Your task to perform on an android device: set the stopwatch Image 0: 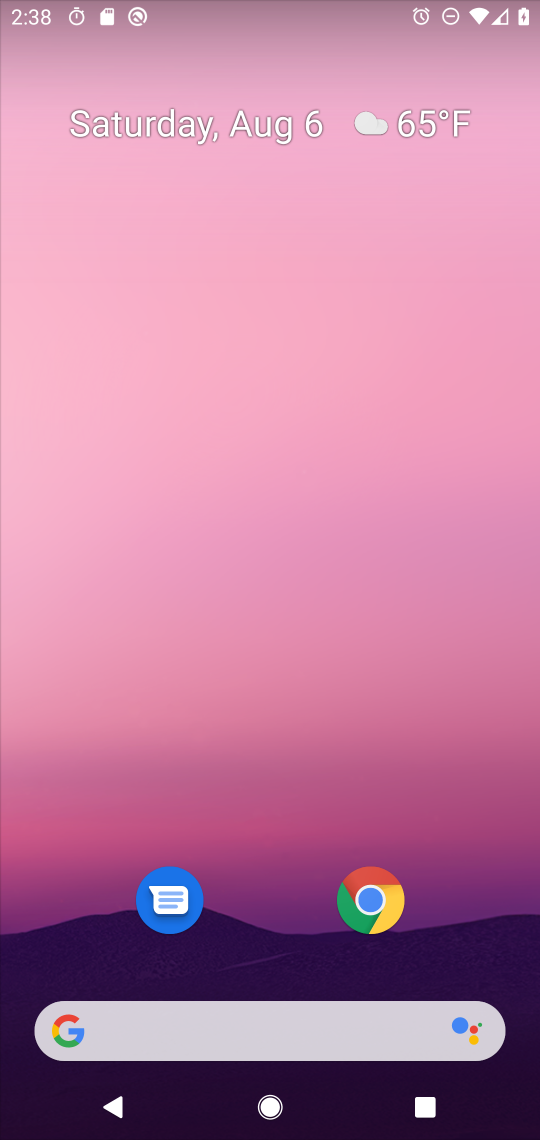
Step 0: drag from (305, 783) to (337, 212)
Your task to perform on an android device: set the stopwatch Image 1: 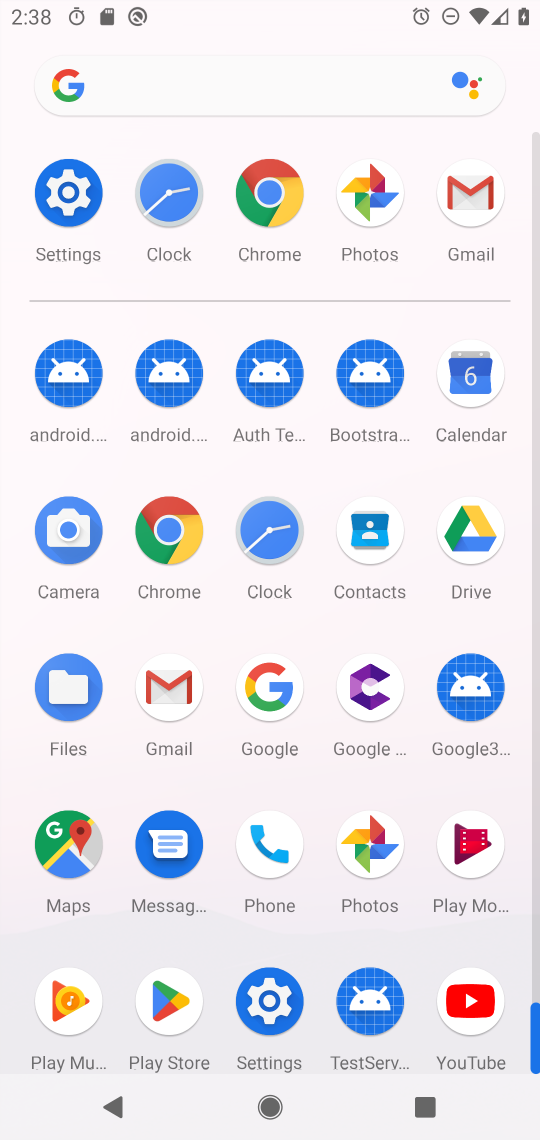
Step 1: click (272, 537)
Your task to perform on an android device: set the stopwatch Image 2: 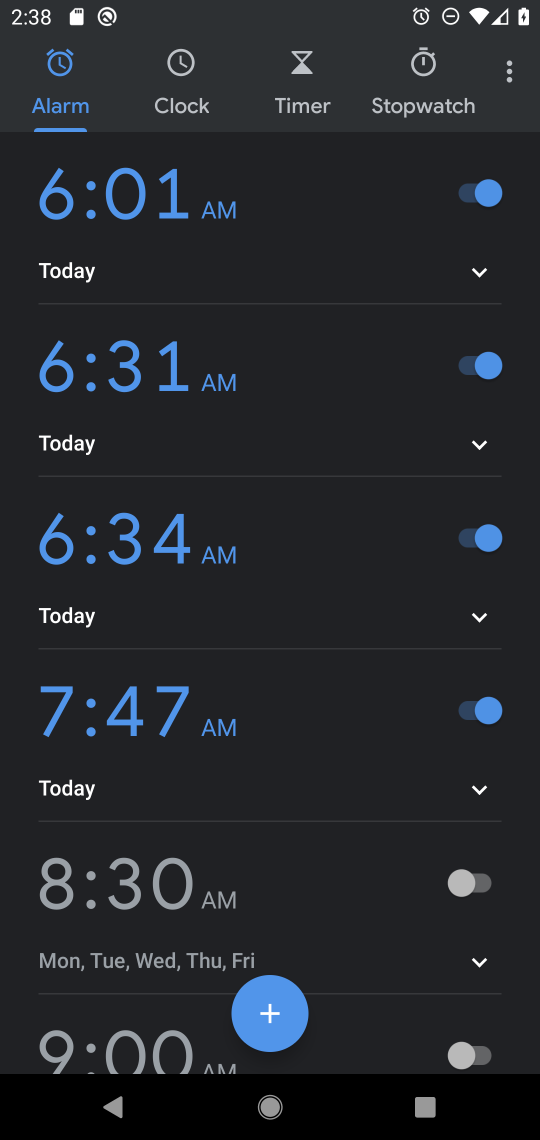
Step 2: click (426, 84)
Your task to perform on an android device: set the stopwatch Image 3: 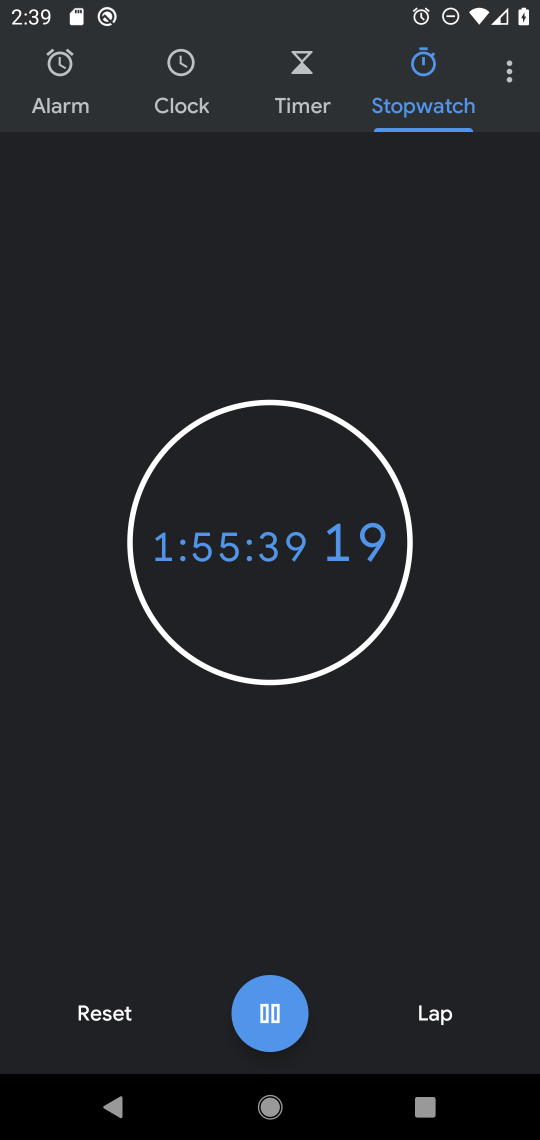
Step 3: click (98, 1013)
Your task to perform on an android device: set the stopwatch Image 4: 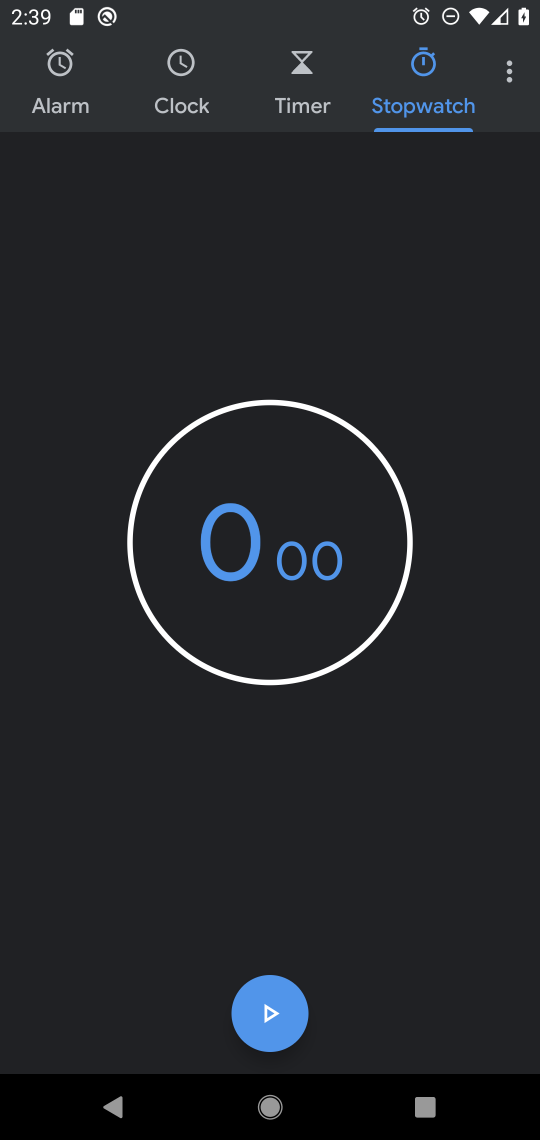
Step 4: click (320, 601)
Your task to perform on an android device: set the stopwatch Image 5: 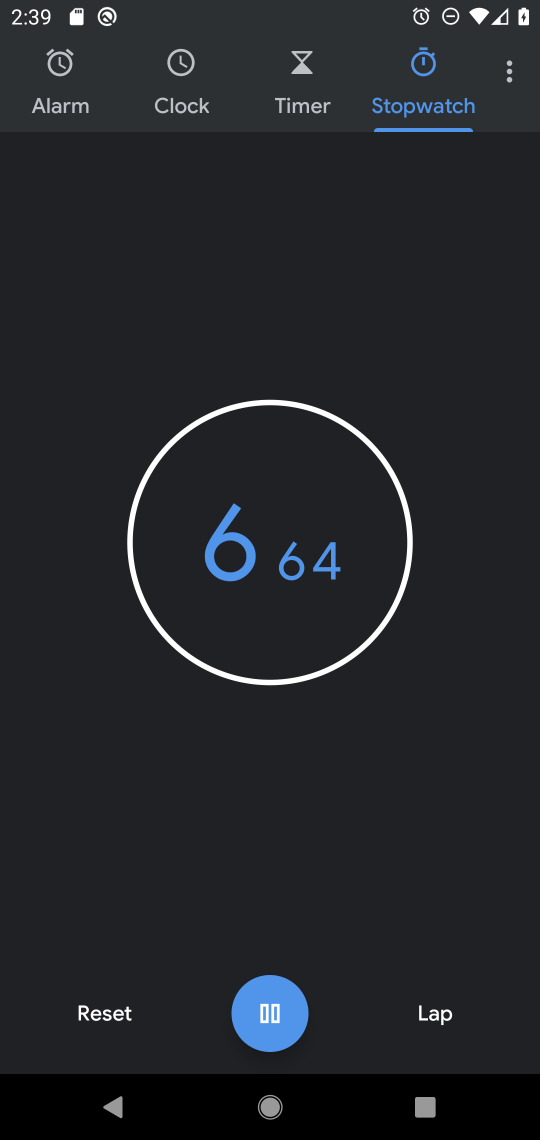
Step 5: task complete